Your task to perform on an android device: Empty the shopping cart on costco.com. Image 0: 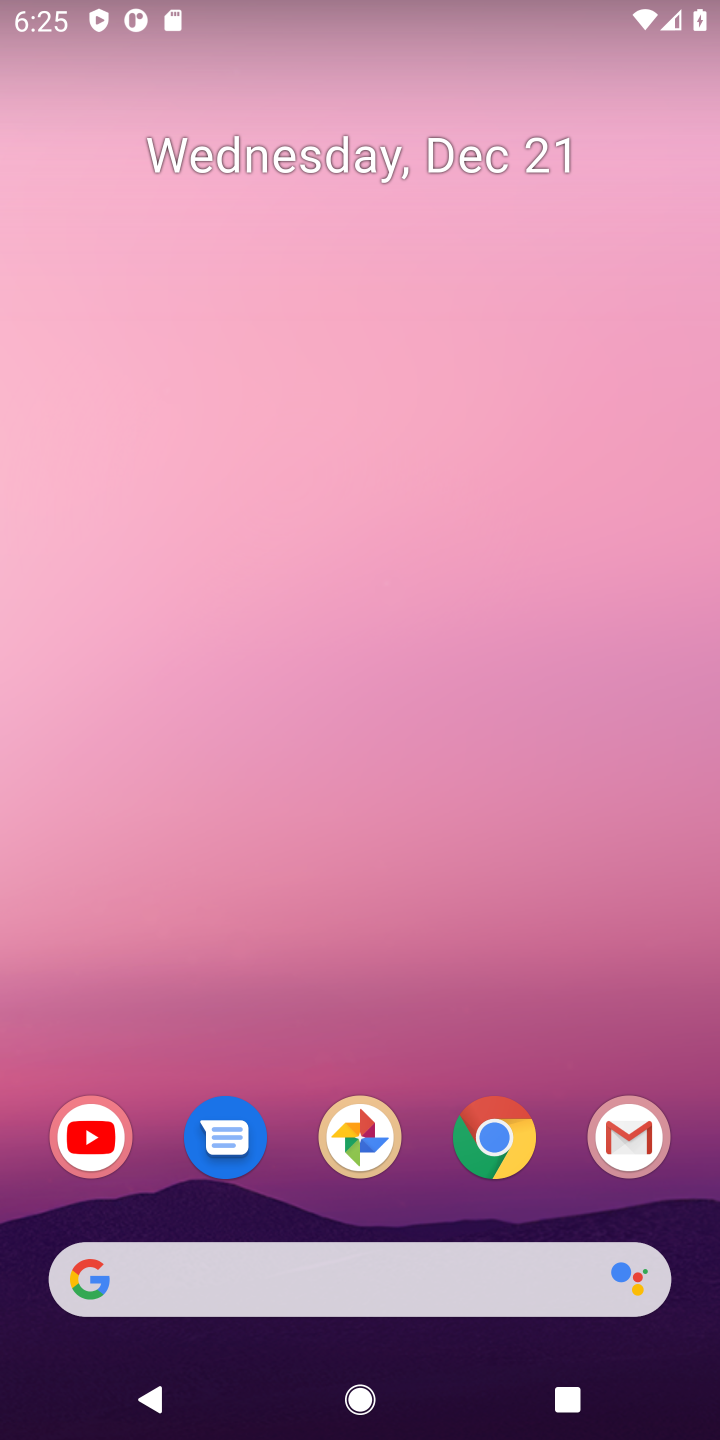
Step 0: click (502, 1136)
Your task to perform on an android device: Empty the shopping cart on costco.com. Image 1: 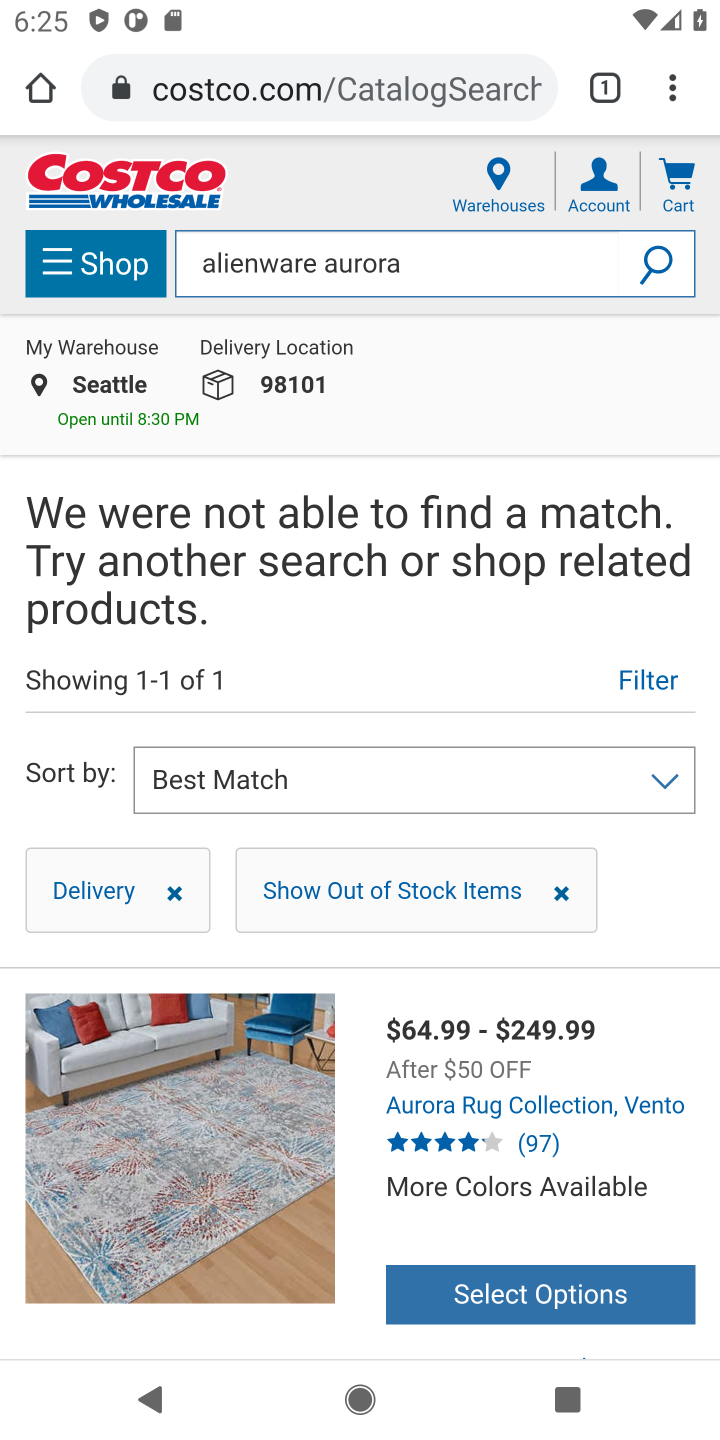
Step 1: click (686, 188)
Your task to perform on an android device: Empty the shopping cart on costco.com. Image 2: 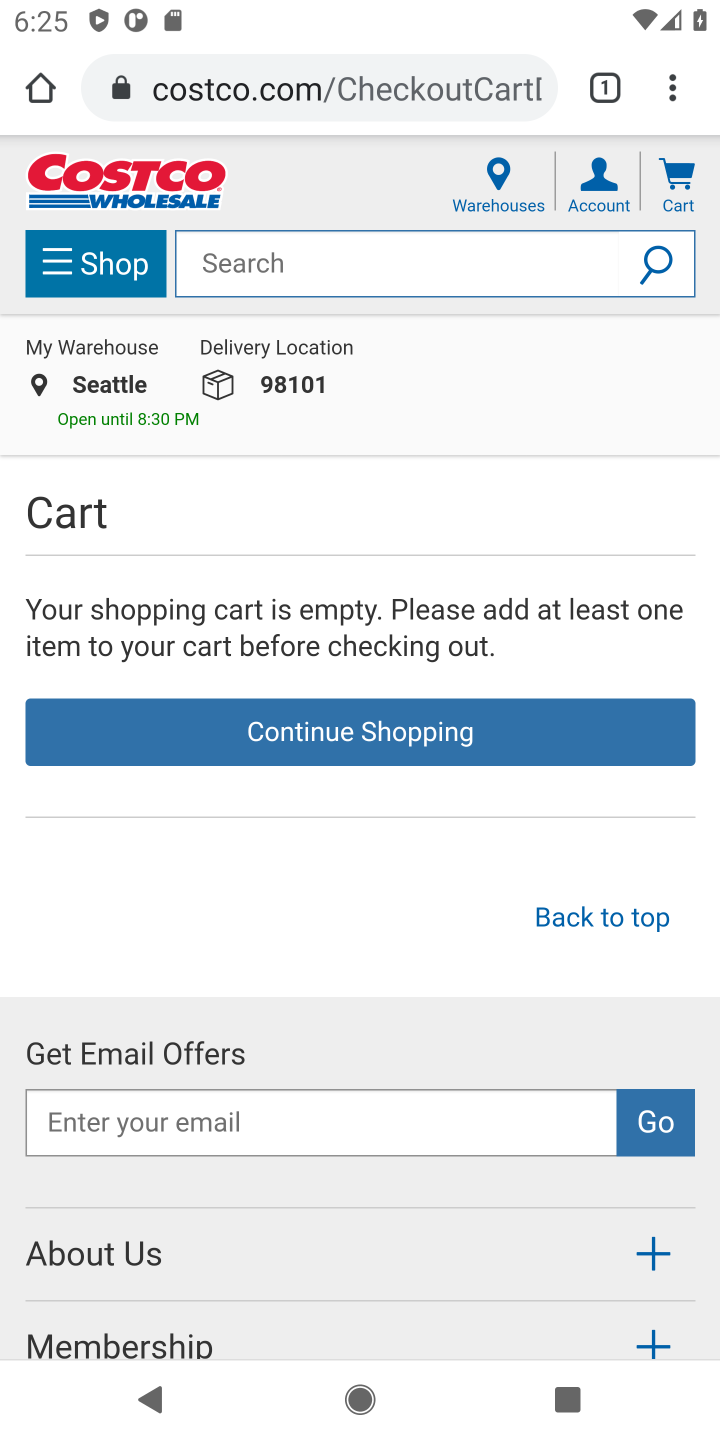
Step 2: task complete